Your task to perform on an android device: open the mobile data screen to see how much data has been used Image 0: 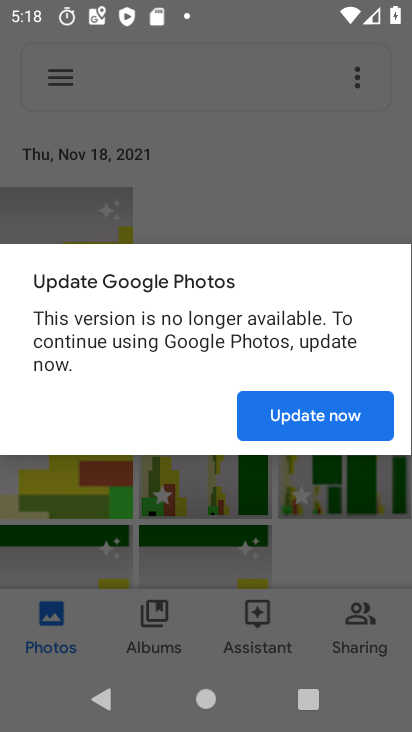
Step 0: click (206, 621)
Your task to perform on an android device: open the mobile data screen to see how much data has been used Image 1: 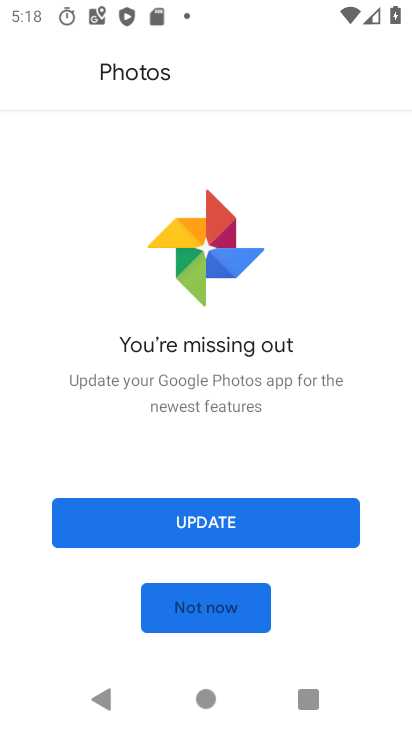
Step 1: press home button
Your task to perform on an android device: open the mobile data screen to see how much data has been used Image 2: 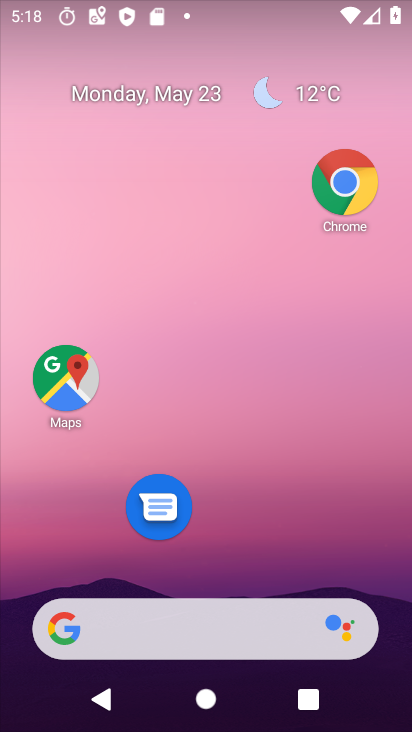
Step 2: drag from (201, 576) to (350, 110)
Your task to perform on an android device: open the mobile data screen to see how much data has been used Image 3: 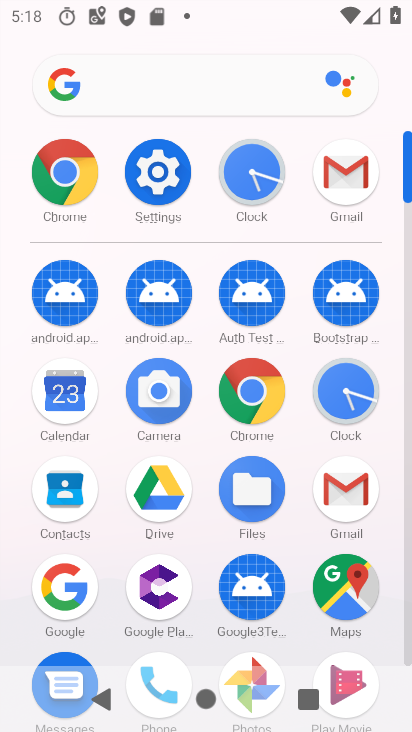
Step 3: click (128, 175)
Your task to perform on an android device: open the mobile data screen to see how much data has been used Image 4: 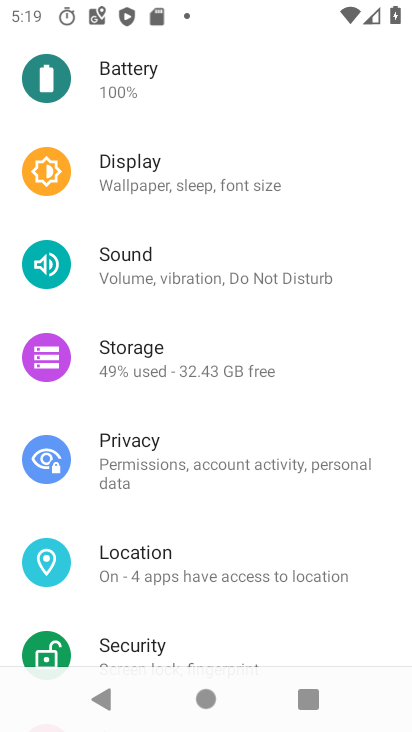
Step 4: drag from (128, 175) to (45, 720)
Your task to perform on an android device: open the mobile data screen to see how much data has been used Image 5: 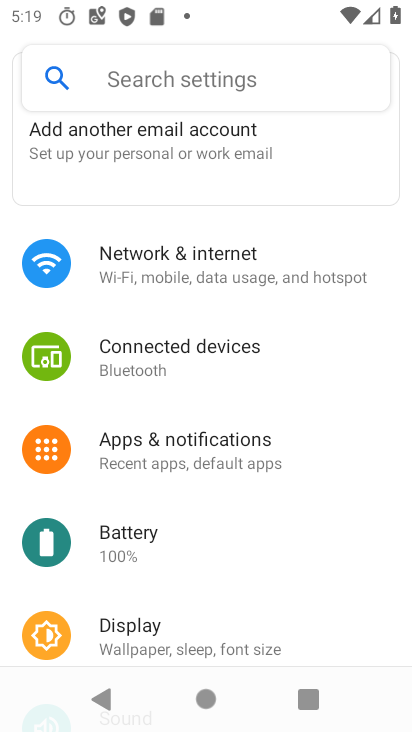
Step 5: click (189, 279)
Your task to perform on an android device: open the mobile data screen to see how much data has been used Image 6: 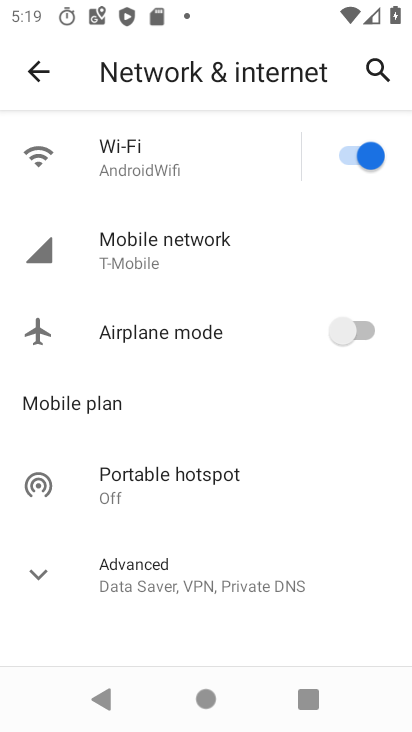
Step 6: click (173, 258)
Your task to perform on an android device: open the mobile data screen to see how much data has been used Image 7: 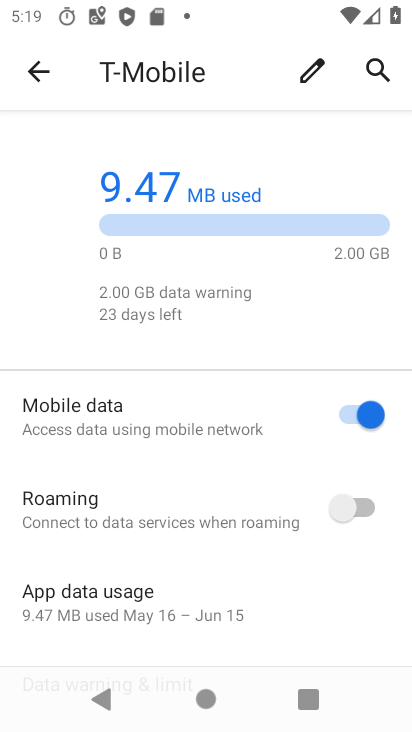
Step 7: task complete